Your task to perform on an android device: Empty the shopping cart on walmart.com. Add "usb-b" to the cart on walmart.com Image 0: 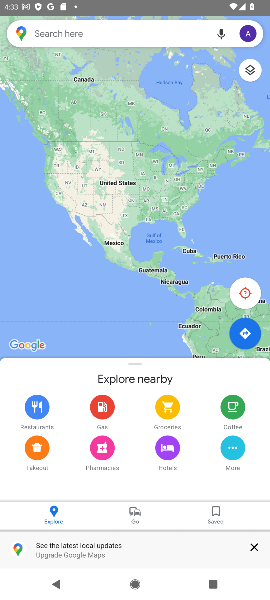
Step 0: press home button
Your task to perform on an android device: Empty the shopping cart on walmart.com. Add "usb-b" to the cart on walmart.com Image 1: 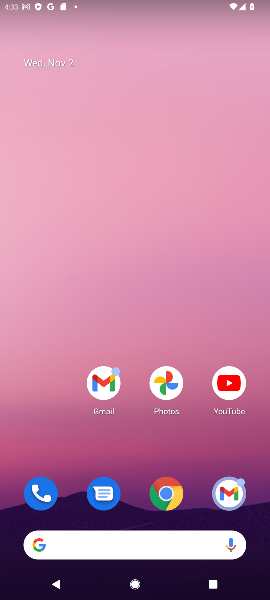
Step 1: drag from (129, 500) to (152, 183)
Your task to perform on an android device: Empty the shopping cart on walmart.com. Add "usb-b" to the cart on walmart.com Image 2: 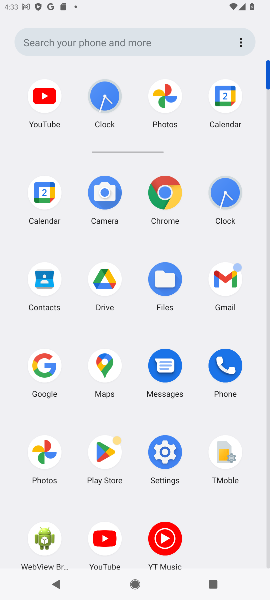
Step 2: click (40, 354)
Your task to perform on an android device: Empty the shopping cart on walmart.com. Add "usb-b" to the cart on walmart.com Image 3: 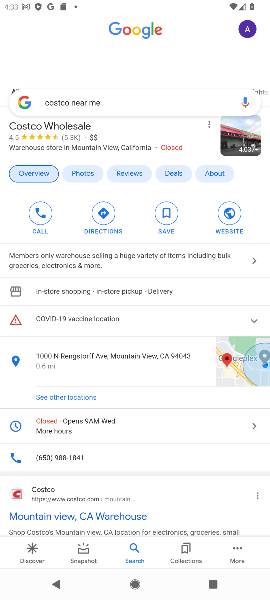
Step 3: click (108, 105)
Your task to perform on an android device: Empty the shopping cart on walmart.com. Add "usb-b" to the cart on walmart.com Image 4: 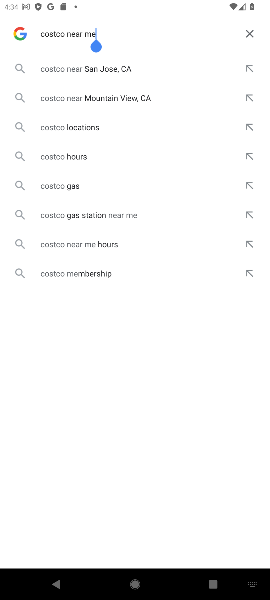
Step 4: click (244, 27)
Your task to perform on an android device: Empty the shopping cart on walmart.com. Add "usb-b" to the cart on walmart.com Image 5: 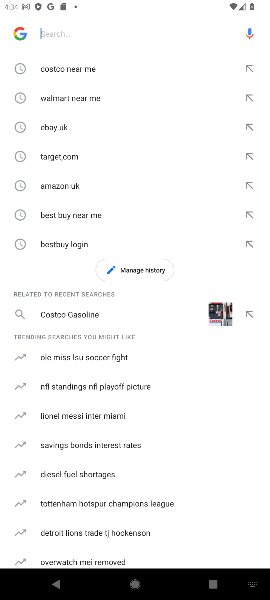
Step 5: click (50, 30)
Your task to perform on an android device: Empty the shopping cart on walmart.com. Add "usb-b" to the cart on walmart.com Image 6: 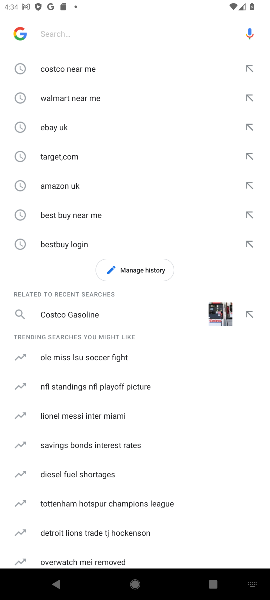
Step 6: type "walmart "
Your task to perform on an android device: Empty the shopping cart on walmart.com. Add "usb-b" to the cart on walmart.com Image 7: 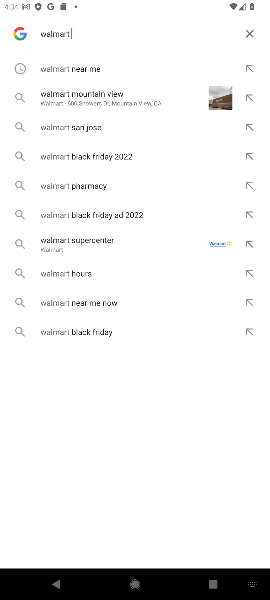
Step 7: click (61, 66)
Your task to perform on an android device: Empty the shopping cart on walmart.com. Add "usb-b" to the cart on walmart.com Image 8: 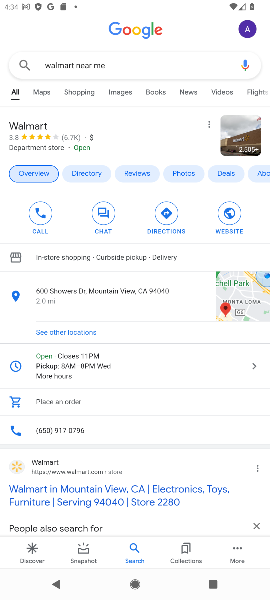
Step 8: click (12, 465)
Your task to perform on an android device: Empty the shopping cart on walmart.com. Add "usb-b" to the cart on walmart.com Image 9: 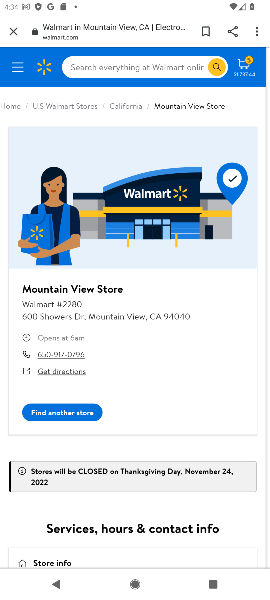
Step 9: click (97, 58)
Your task to perform on an android device: Empty the shopping cart on walmart.com. Add "usb-b" to the cart on walmart.com Image 10: 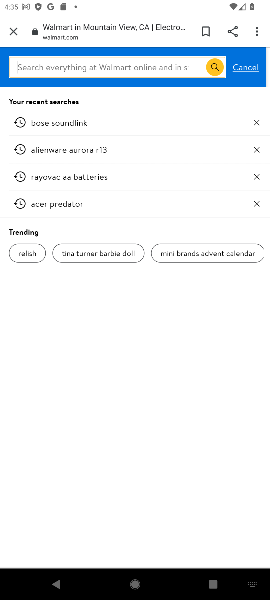
Step 10: click (245, 66)
Your task to perform on an android device: Empty the shopping cart on walmart.com. Add "usb-b" to the cart on walmart.com Image 11: 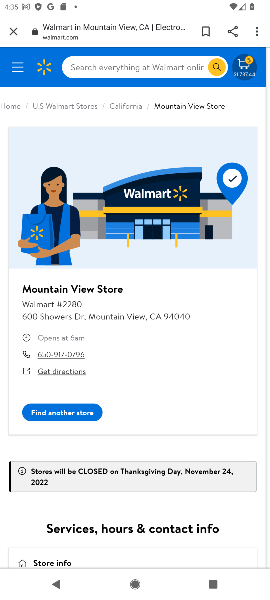
Step 11: click (246, 63)
Your task to perform on an android device: Empty the shopping cart on walmart.com. Add "usb-b" to the cart on walmart.com Image 12: 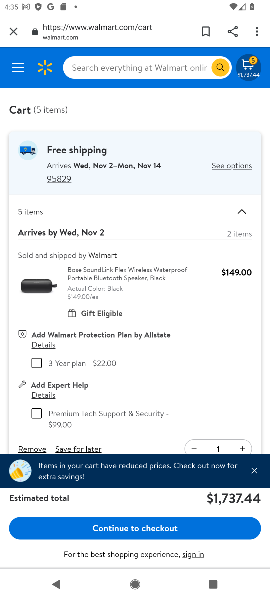
Step 12: click (29, 450)
Your task to perform on an android device: Empty the shopping cart on walmart.com. Add "usb-b" to the cart on walmart.com Image 13: 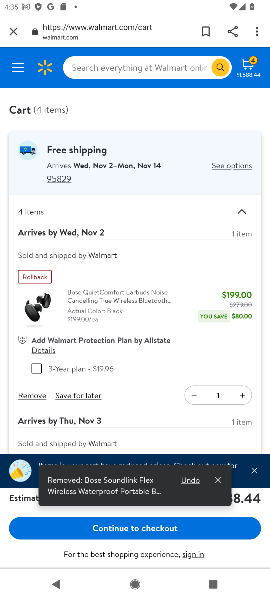
Step 13: click (252, 472)
Your task to perform on an android device: Empty the shopping cart on walmart.com. Add "usb-b" to the cart on walmart.com Image 14: 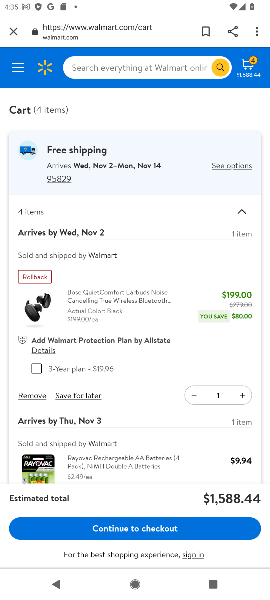
Step 14: click (26, 394)
Your task to perform on an android device: Empty the shopping cart on walmart.com. Add "usb-b" to the cart on walmart.com Image 15: 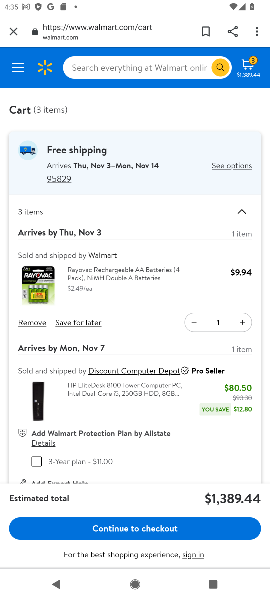
Step 15: drag from (62, 440) to (69, 385)
Your task to perform on an android device: Empty the shopping cart on walmart.com. Add "usb-b" to the cart on walmart.com Image 16: 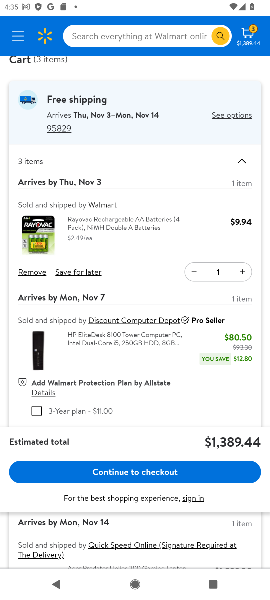
Step 16: click (22, 269)
Your task to perform on an android device: Empty the shopping cart on walmart.com. Add "usb-b" to the cart on walmart.com Image 17: 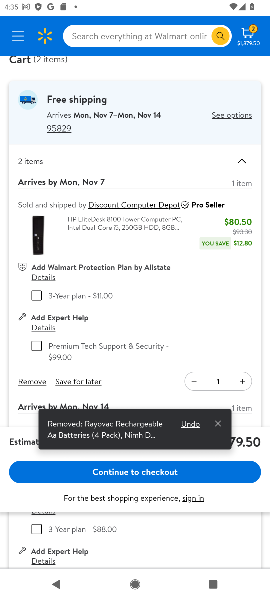
Step 17: click (26, 378)
Your task to perform on an android device: Empty the shopping cart on walmart.com. Add "usb-b" to the cart on walmart.com Image 18: 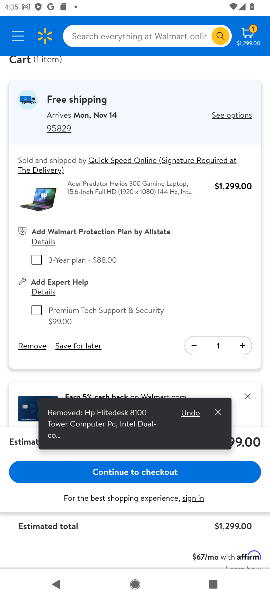
Step 18: click (29, 340)
Your task to perform on an android device: Empty the shopping cart on walmart.com. Add "usb-b" to the cart on walmart.com Image 19: 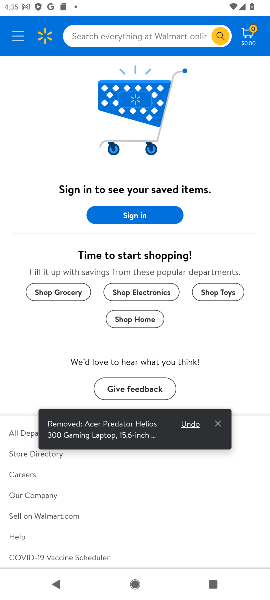
Step 19: task complete